Your task to perform on an android device: Go to Reddit.com Image 0: 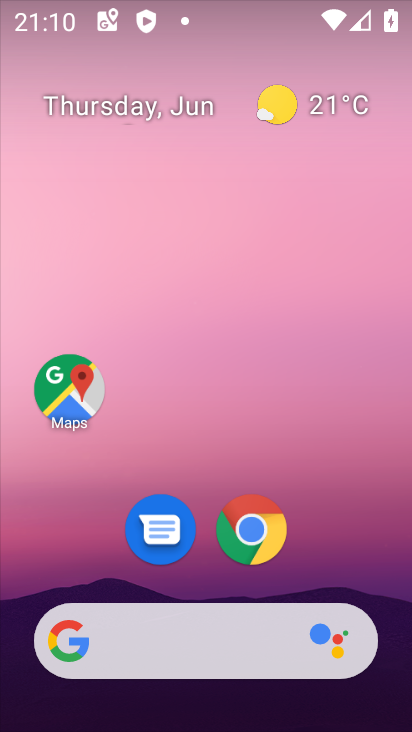
Step 0: click (205, 640)
Your task to perform on an android device: Go to Reddit.com Image 1: 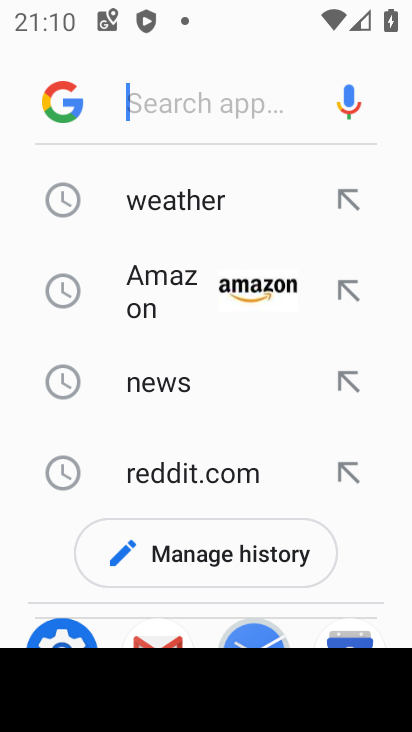
Step 1: click (219, 466)
Your task to perform on an android device: Go to Reddit.com Image 2: 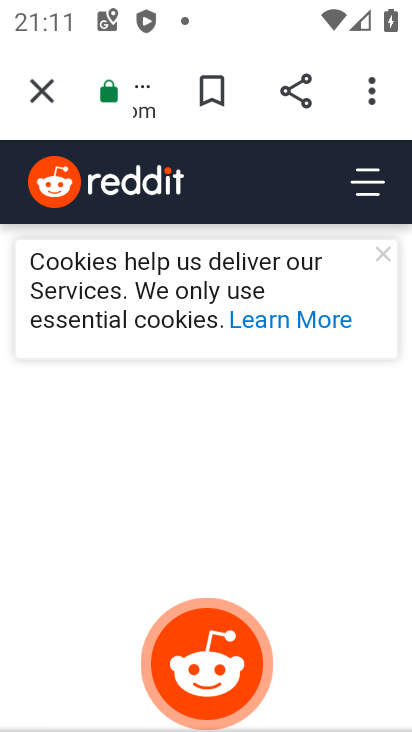
Step 2: task complete